Your task to perform on an android device: Toggle the flashlight Image 0: 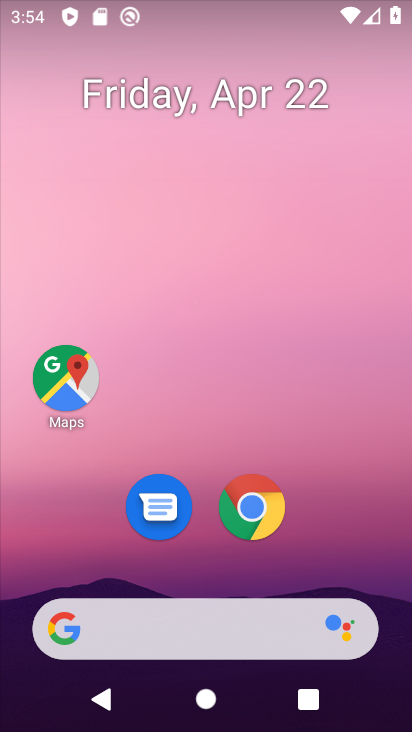
Step 0: drag from (343, 523) to (333, 83)
Your task to perform on an android device: Toggle the flashlight Image 1: 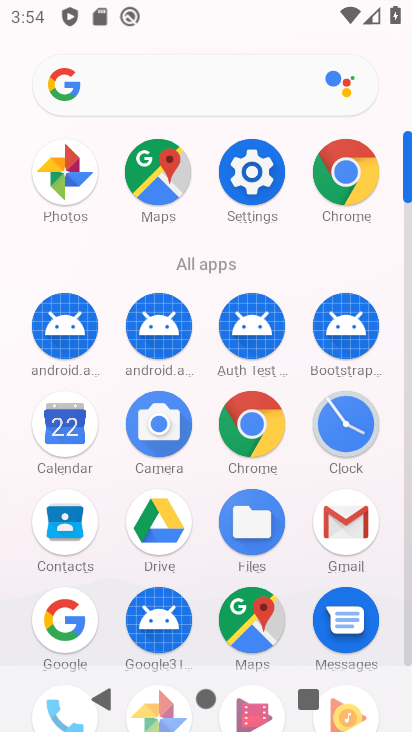
Step 1: click (257, 182)
Your task to perform on an android device: Toggle the flashlight Image 2: 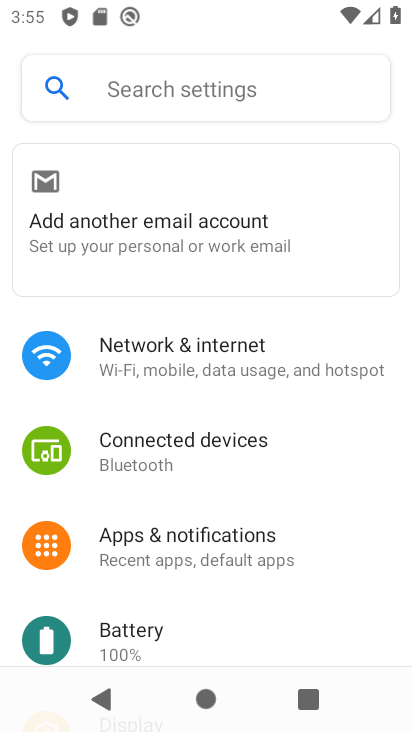
Step 2: click (275, 84)
Your task to perform on an android device: Toggle the flashlight Image 3: 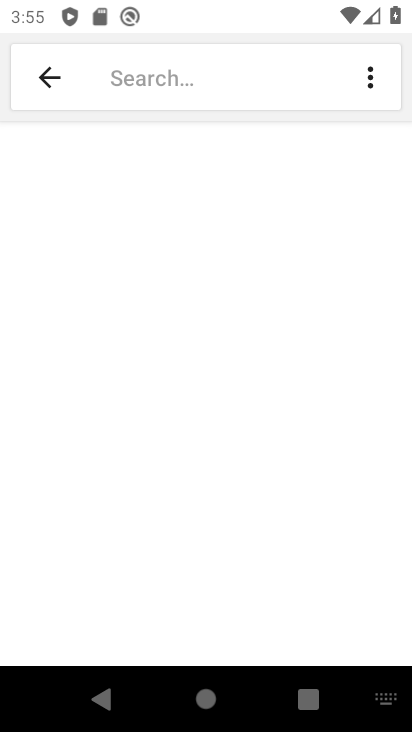
Step 3: type "flashlight"
Your task to perform on an android device: Toggle the flashlight Image 4: 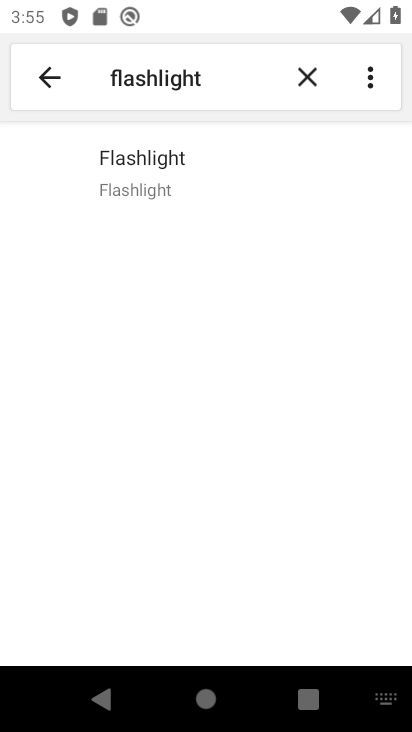
Step 4: click (143, 155)
Your task to perform on an android device: Toggle the flashlight Image 5: 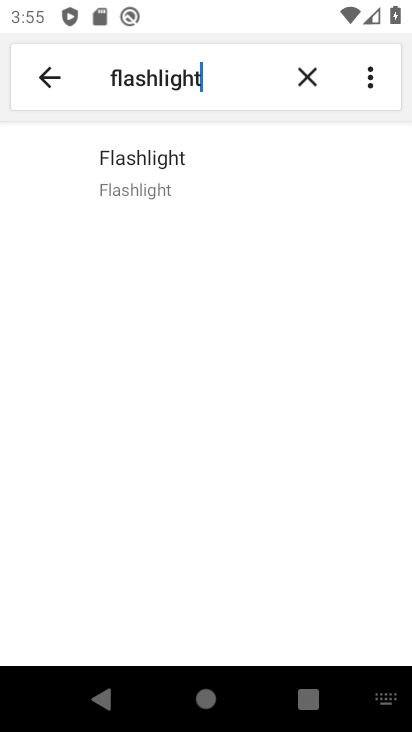
Step 5: task complete